Your task to perform on an android device: turn off priority inbox in the gmail app Image 0: 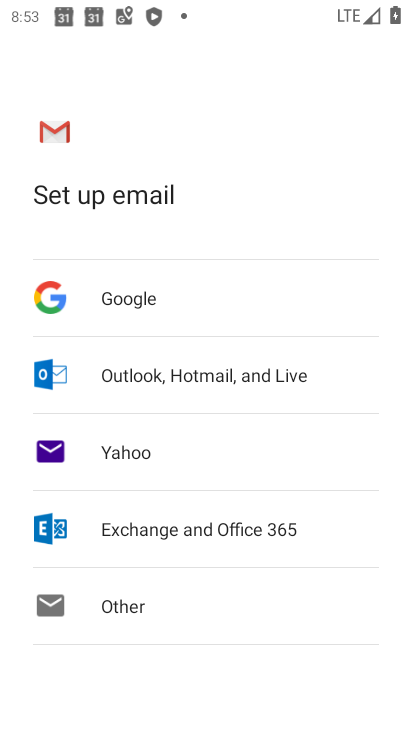
Step 0: press home button
Your task to perform on an android device: turn off priority inbox in the gmail app Image 1: 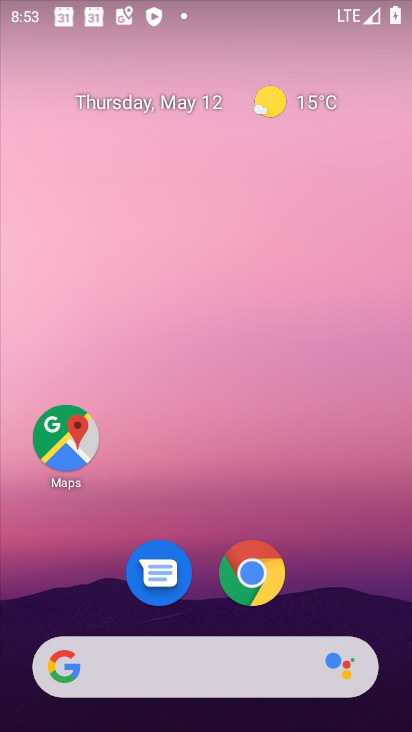
Step 1: drag from (279, 491) to (162, 222)
Your task to perform on an android device: turn off priority inbox in the gmail app Image 2: 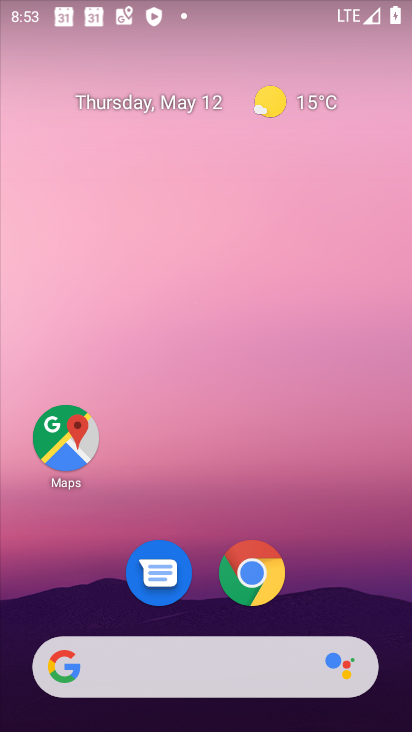
Step 2: drag from (330, 568) to (294, 16)
Your task to perform on an android device: turn off priority inbox in the gmail app Image 3: 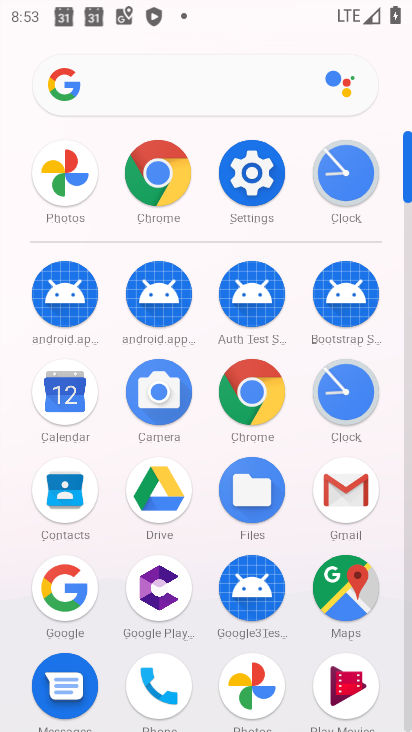
Step 3: click (342, 484)
Your task to perform on an android device: turn off priority inbox in the gmail app Image 4: 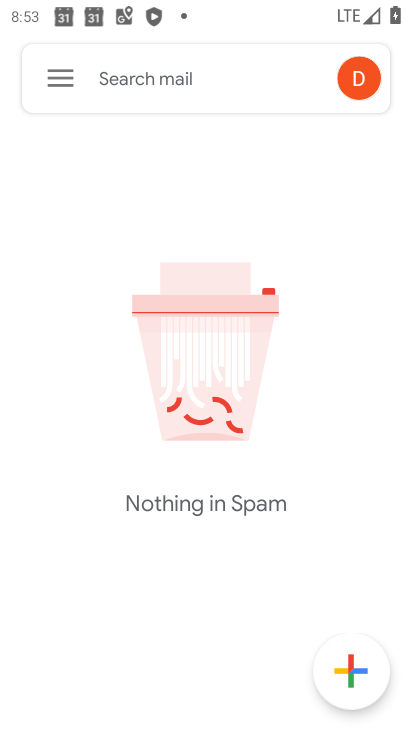
Step 4: click (61, 74)
Your task to perform on an android device: turn off priority inbox in the gmail app Image 5: 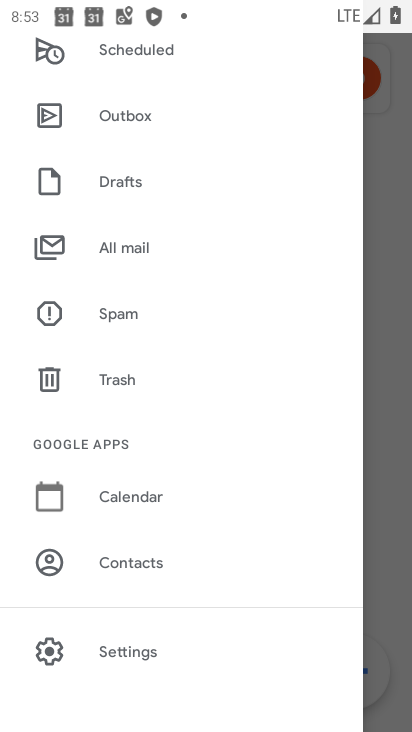
Step 5: click (137, 651)
Your task to perform on an android device: turn off priority inbox in the gmail app Image 6: 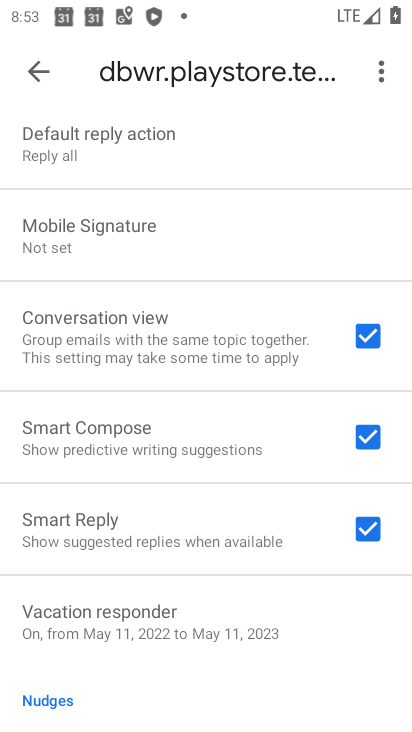
Step 6: drag from (144, 197) to (167, 612)
Your task to perform on an android device: turn off priority inbox in the gmail app Image 7: 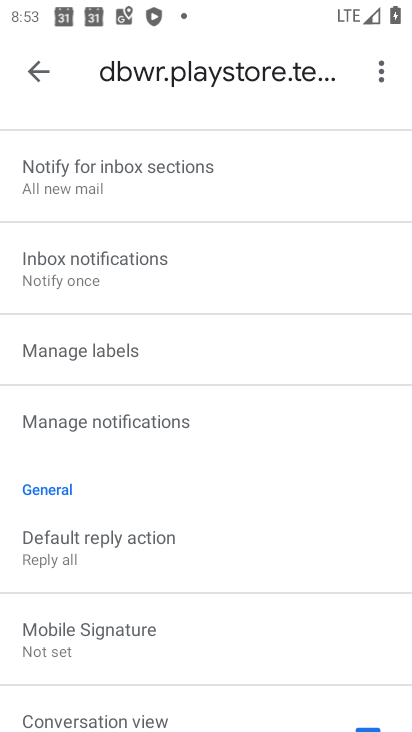
Step 7: drag from (201, 230) to (211, 677)
Your task to perform on an android device: turn off priority inbox in the gmail app Image 8: 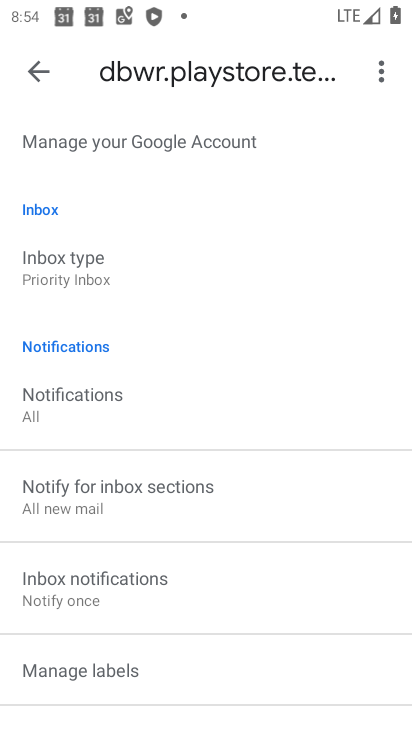
Step 8: click (56, 259)
Your task to perform on an android device: turn off priority inbox in the gmail app Image 9: 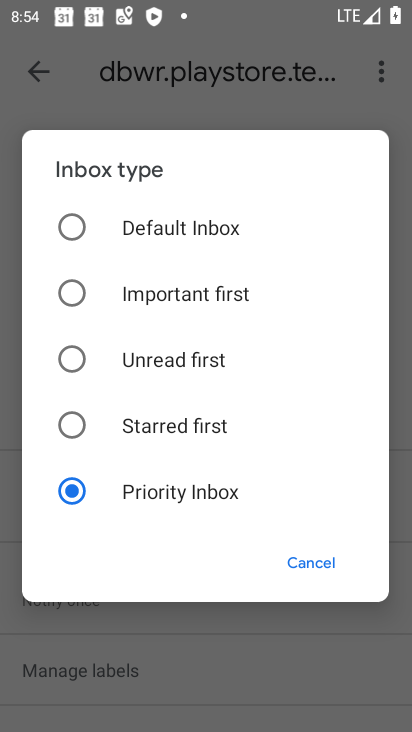
Step 9: click (73, 228)
Your task to perform on an android device: turn off priority inbox in the gmail app Image 10: 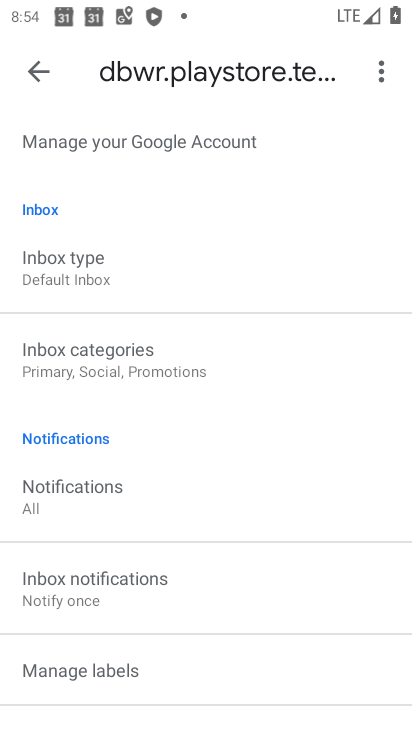
Step 10: task complete